Your task to perform on an android device: turn off javascript in the chrome app Image 0: 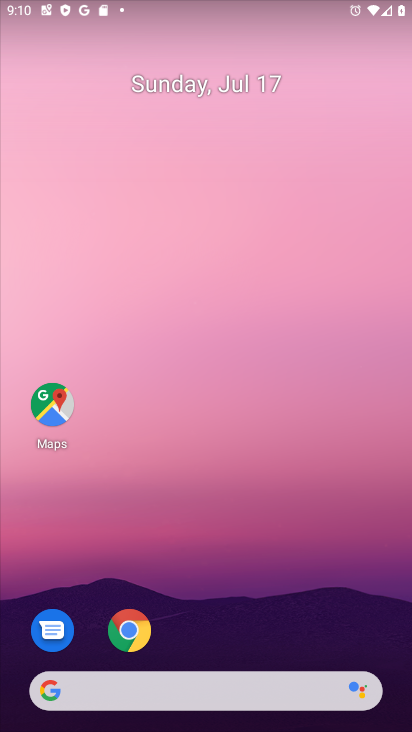
Step 0: press home button
Your task to perform on an android device: turn off javascript in the chrome app Image 1: 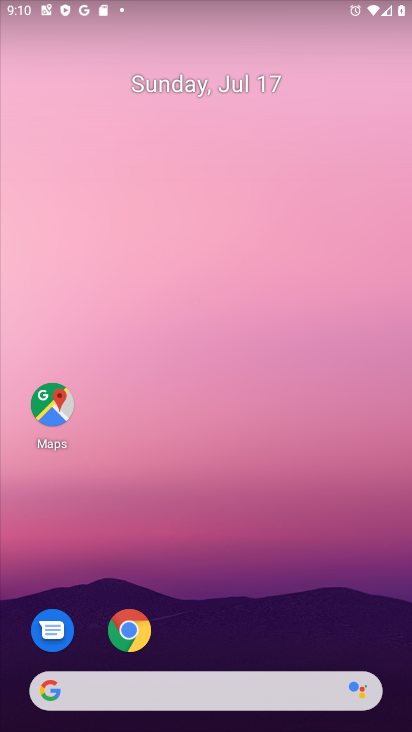
Step 1: click (131, 624)
Your task to perform on an android device: turn off javascript in the chrome app Image 2: 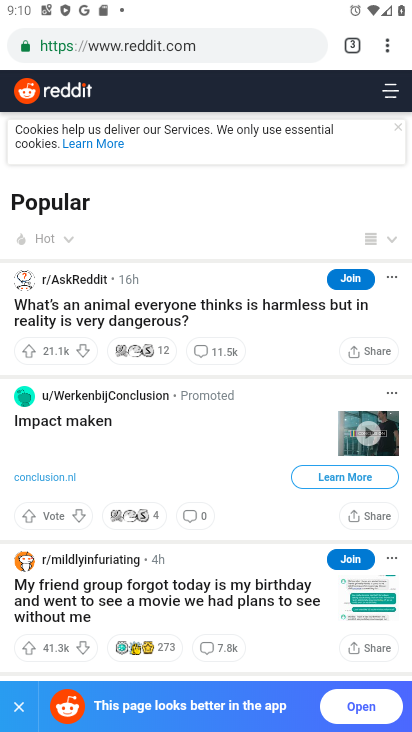
Step 2: click (388, 40)
Your task to perform on an android device: turn off javascript in the chrome app Image 3: 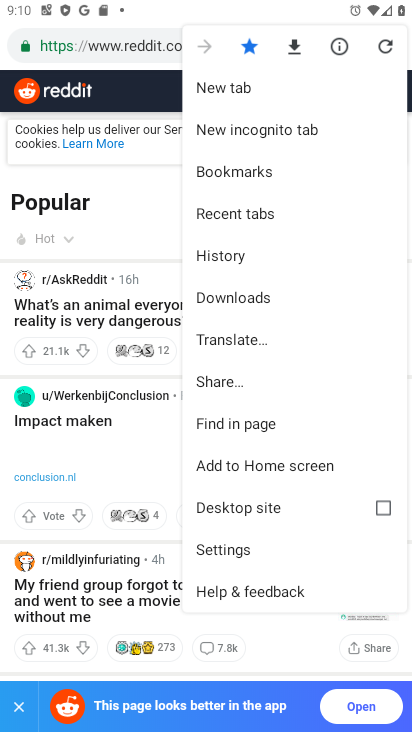
Step 3: click (238, 547)
Your task to perform on an android device: turn off javascript in the chrome app Image 4: 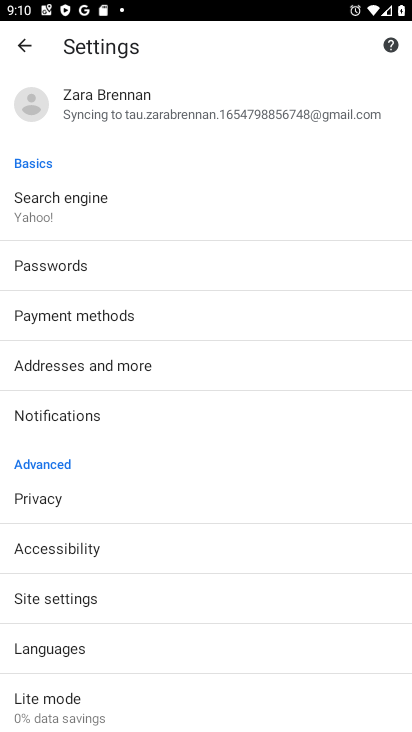
Step 4: click (56, 594)
Your task to perform on an android device: turn off javascript in the chrome app Image 5: 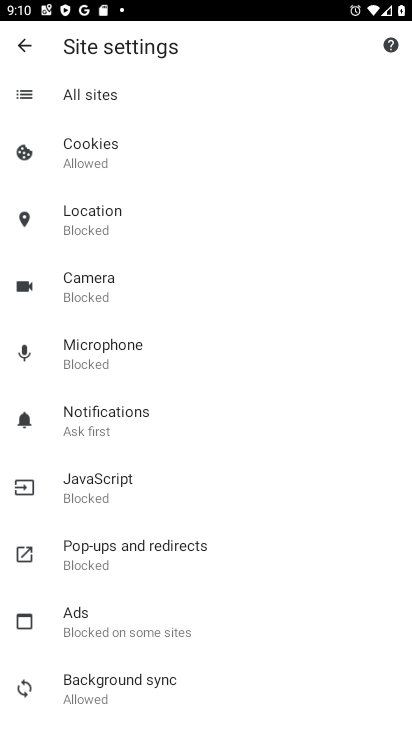
Step 5: click (111, 486)
Your task to perform on an android device: turn off javascript in the chrome app Image 6: 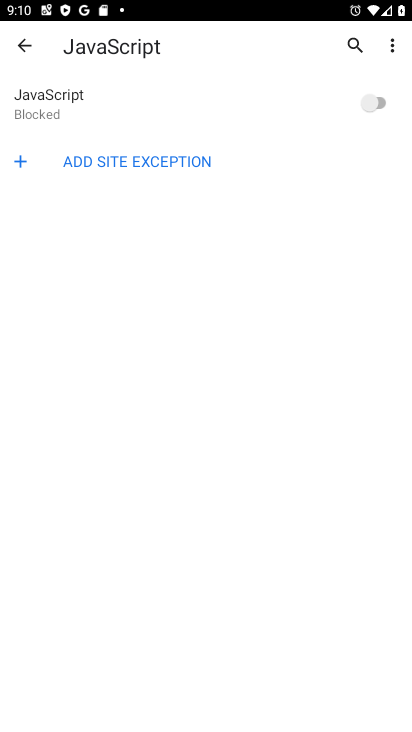
Step 6: task complete